Your task to perform on an android device: turn notification dots on Image 0: 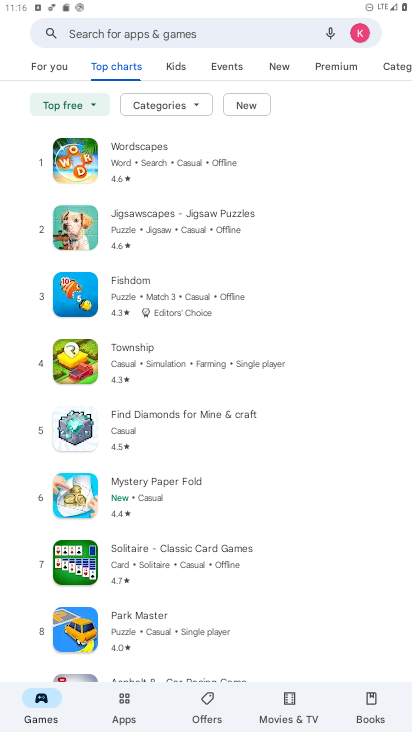
Step 0: press home button
Your task to perform on an android device: turn notification dots on Image 1: 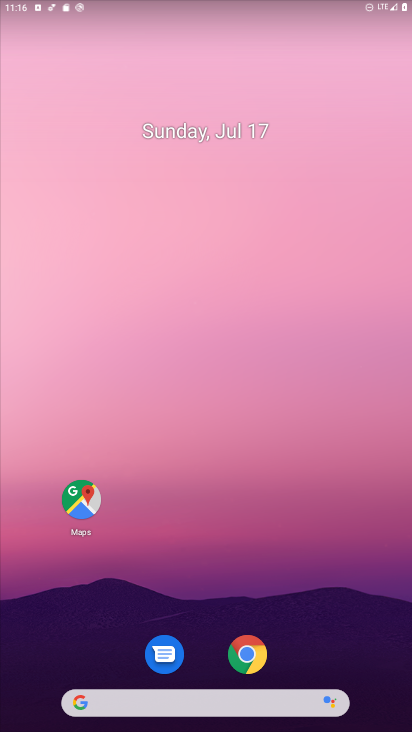
Step 1: drag from (199, 617) to (197, 198)
Your task to perform on an android device: turn notification dots on Image 2: 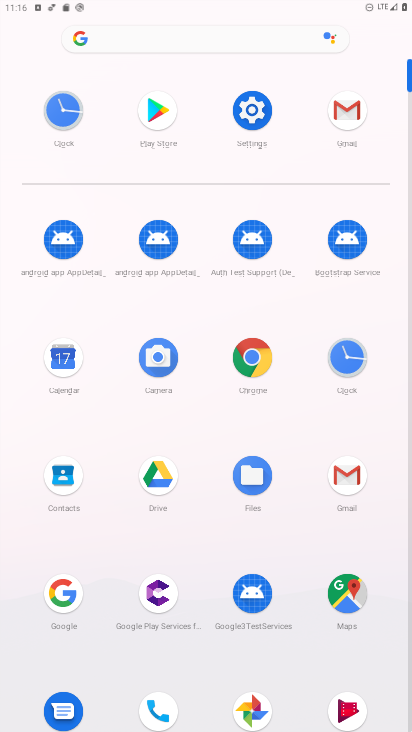
Step 2: click (265, 99)
Your task to perform on an android device: turn notification dots on Image 3: 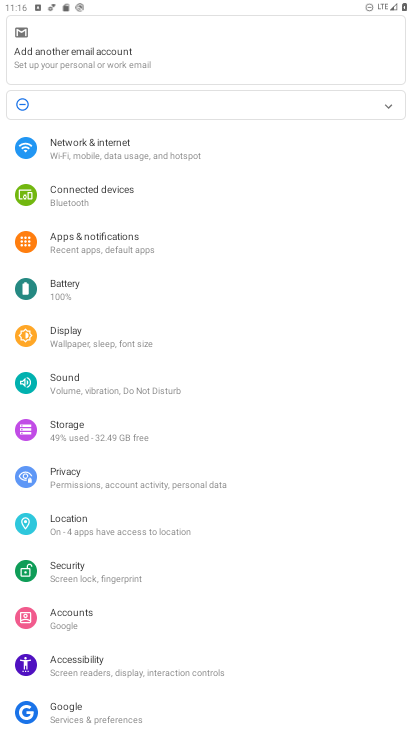
Step 3: click (115, 245)
Your task to perform on an android device: turn notification dots on Image 4: 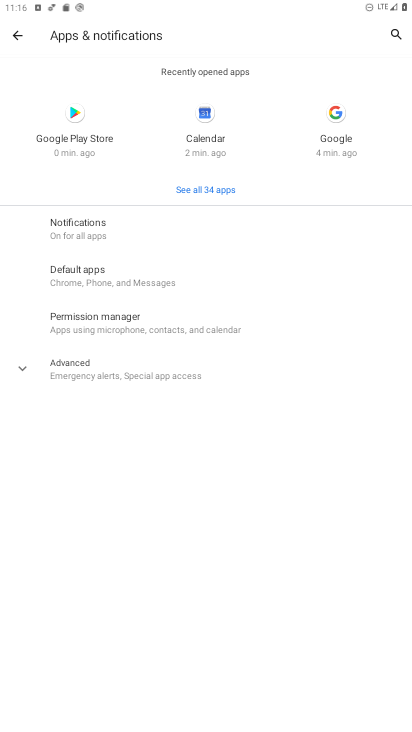
Step 4: click (108, 238)
Your task to perform on an android device: turn notification dots on Image 5: 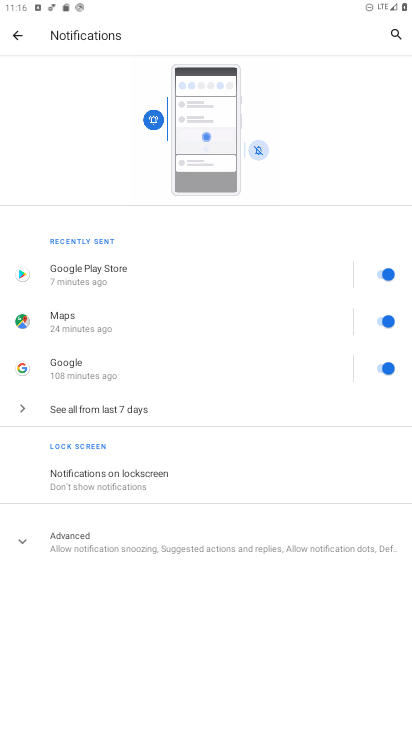
Step 5: click (117, 540)
Your task to perform on an android device: turn notification dots on Image 6: 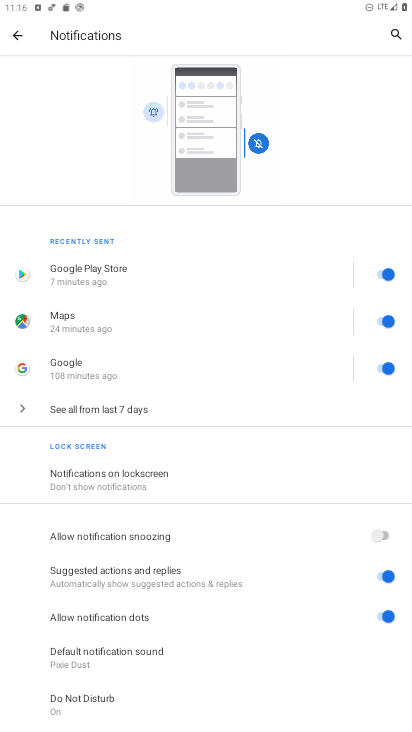
Step 6: task complete